Your task to perform on an android device: Open Amazon Image 0: 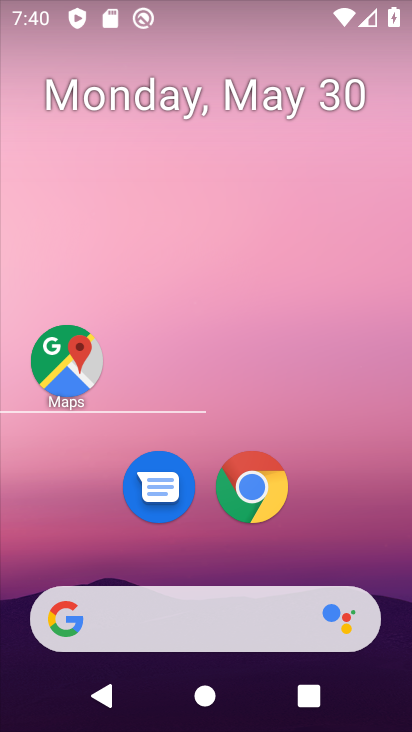
Step 0: click (89, 549)
Your task to perform on an android device: Open Amazon Image 1: 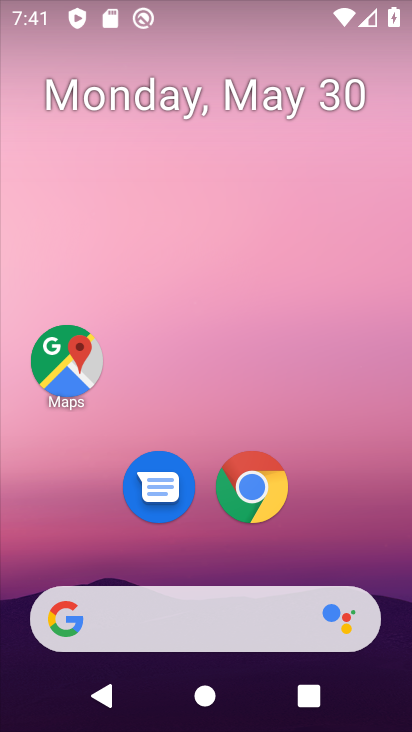
Step 1: click (248, 486)
Your task to perform on an android device: Open Amazon Image 2: 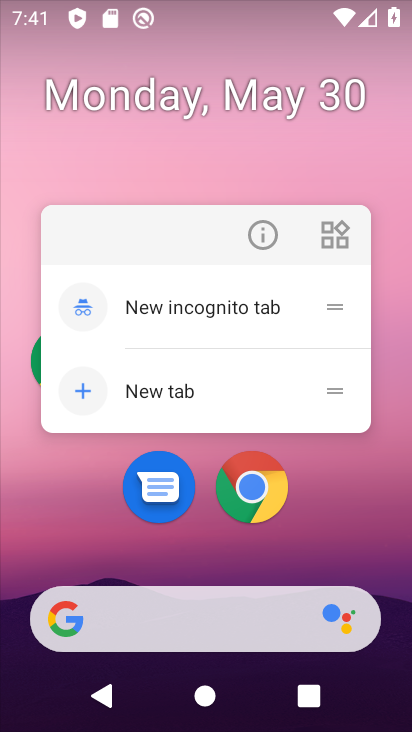
Step 2: click (238, 499)
Your task to perform on an android device: Open Amazon Image 3: 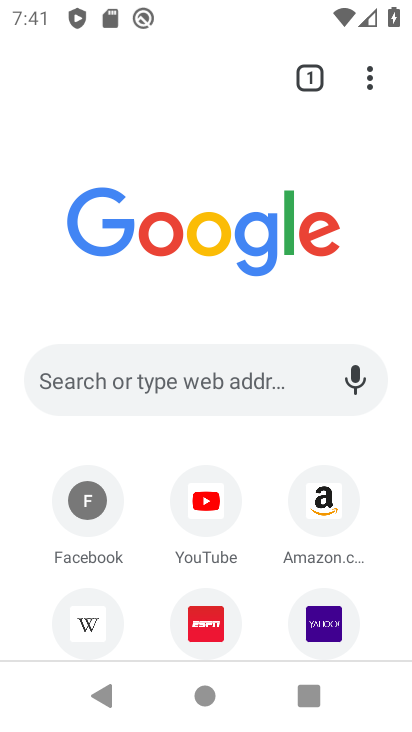
Step 3: click (323, 511)
Your task to perform on an android device: Open Amazon Image 4: 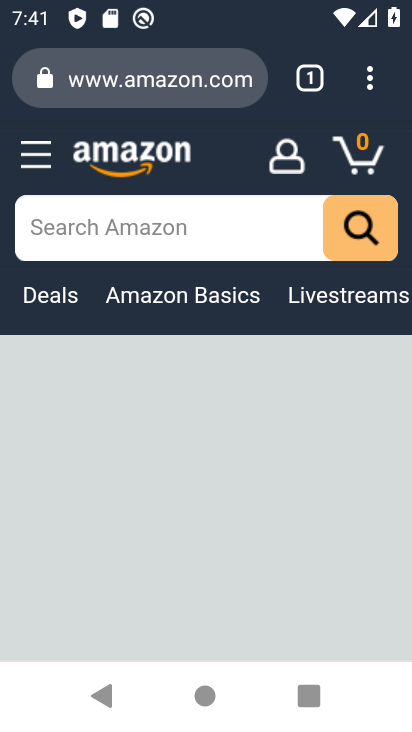
Step 4: task complete